Your task to perform on an android device: turn on wifi Image 0: 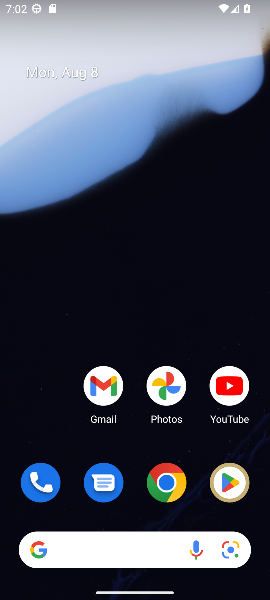
Step 0: drag from (123, 500) to (114, 75)
Your task to perform on an android device: turn on wifi Image 1: 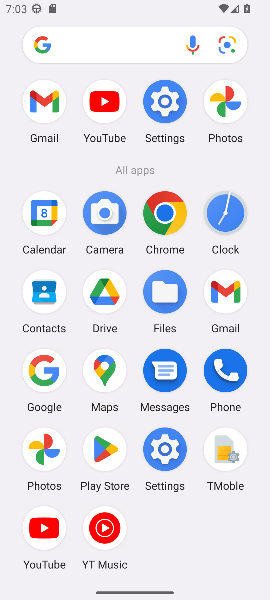
Step 1: click (152, 96)
Your task to perform on an android device: turn on wifi Image 2: 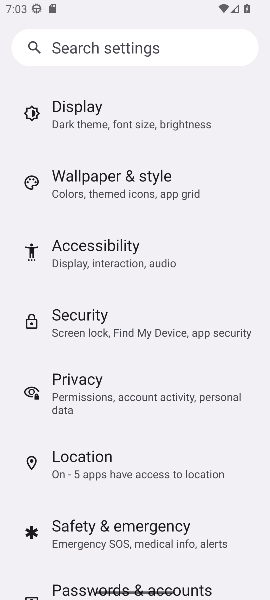
Step 2: drag from (153, 96) to (131, 461)
Your task to perform on an android device: turn on wifi Image 3: 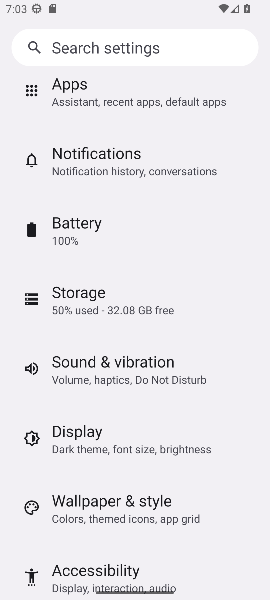
Step 3: drag from (126, 133) to (190, 495)
Your task to perform on an android device: turn on wifi Image 4: 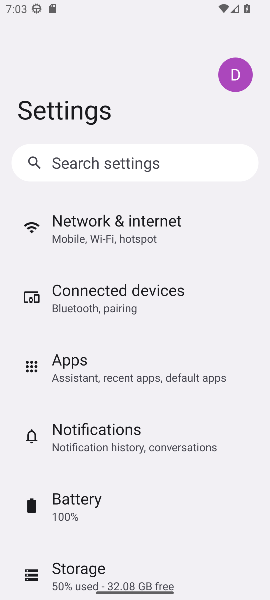
Step 4: click (135, 221)
Your task to perform on an android device: turn on wifi Image 5: 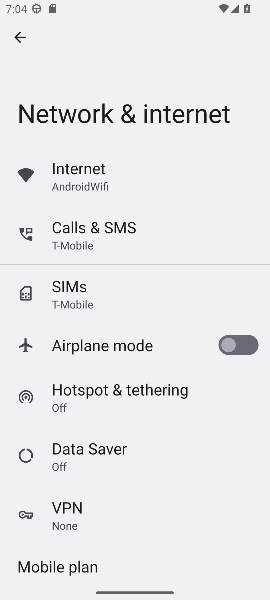
Step 5: click (83, 151)
Your task to perform on an android device: turn on wifi Image 6: 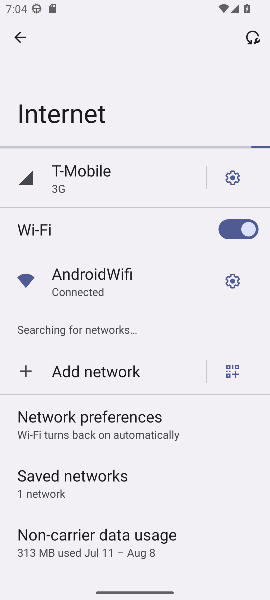
Step 6: click (80, 181)
Your task to perform on an android device: turn on wifi Image 7: 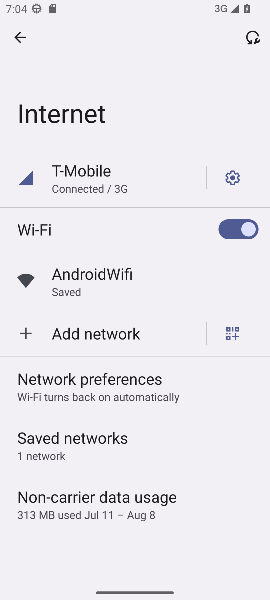
Step 7: click (18, 35)
Your task to perform on an android device: turn on wifi Image 8: 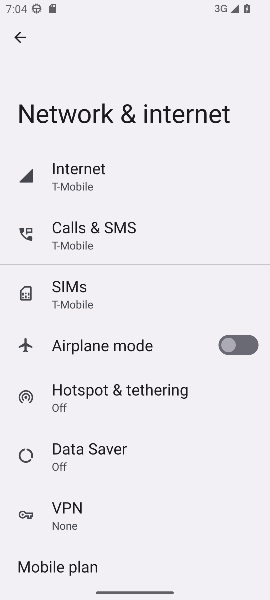
Step 8: task complete